Your task to perform on an android device: move a message to another label in the gmail app Image 0: 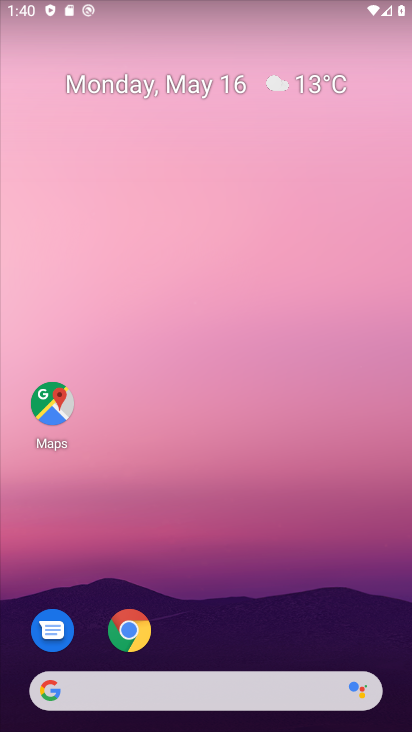
Step 0: drag from (293, 622) to (328, 168)
Your task to perform on an android device: move a message to another label in the gmail app Image 1: 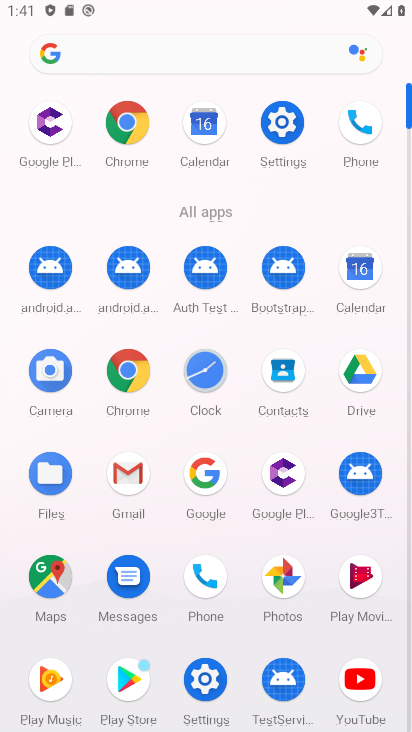
Step 1: click (136, 477)
Your task to perform on an android device: move a message to another label in the gmail app Image 2: 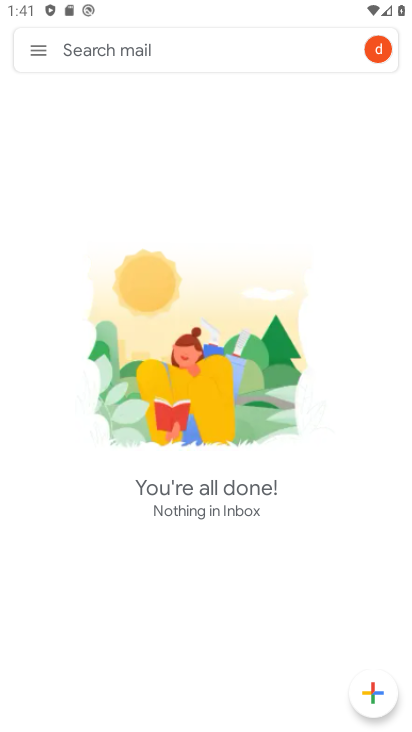
Step 2: click (41, 40)
Your task to perform on an android device: move a message to another label in the gmail app Image 3: 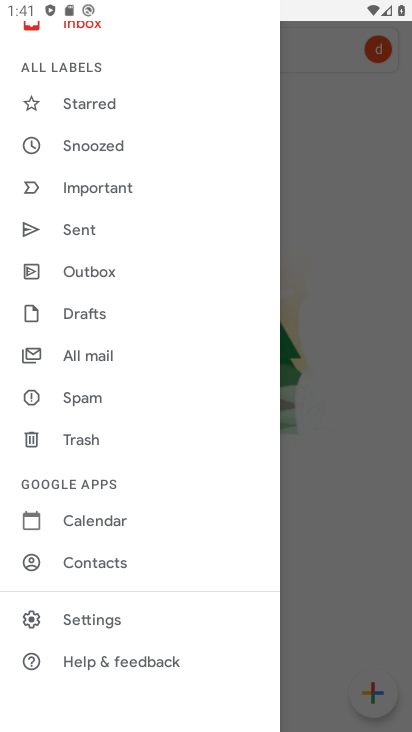
Step 3: click (102, 361)
Your task to perform on an android device: move a message to another label in the gmail app Image 4: 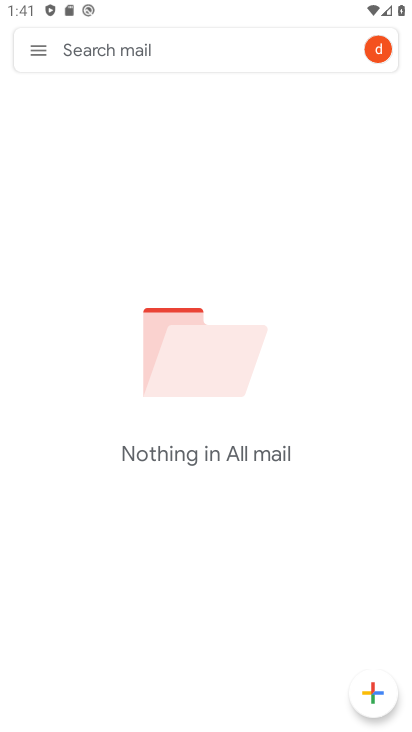
Step 4: task complete